Your task to perform on an android device: Show me popular videos on Youtube Image 0: 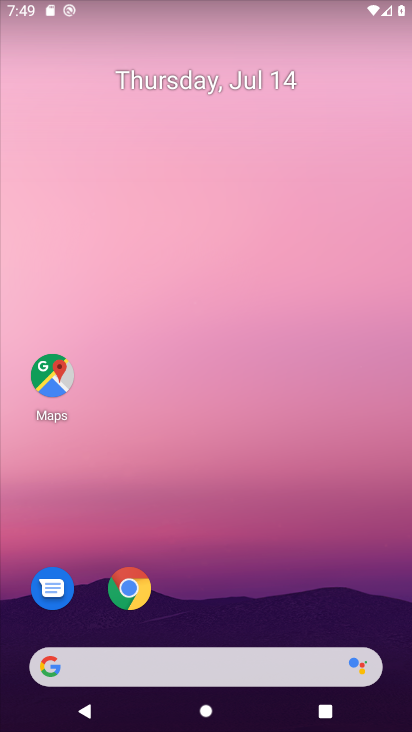
Step 0: drag from (209, 625) to (168, 140)
Your task to perform on an android device: Show me popular videos on Youtube Image 1: 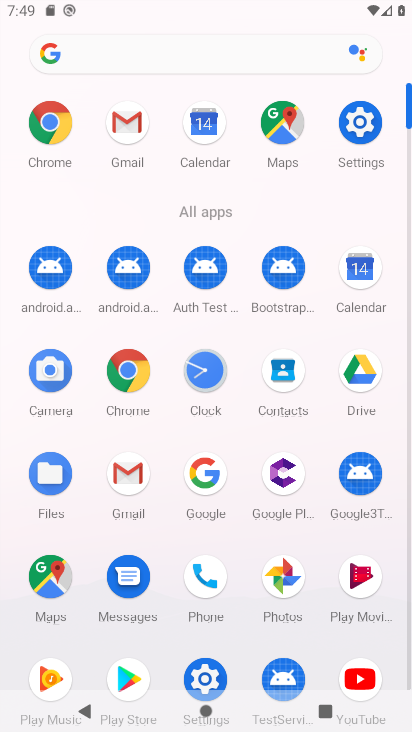
Step 1: click (353, 668)
Your task to perform on an android device: Show me popular videos on Youtube Image 2: 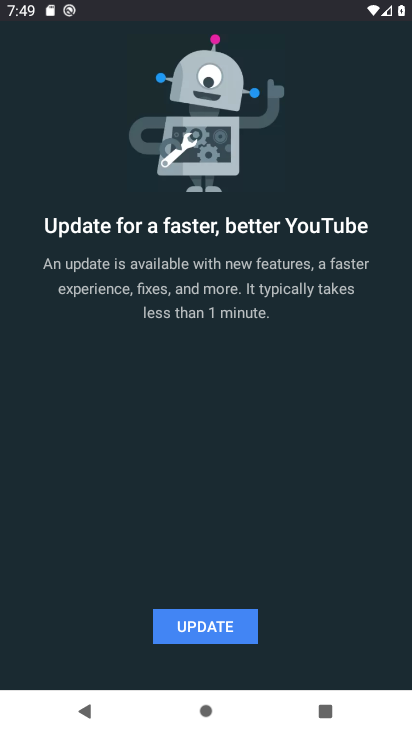
Step 2: click (186, 623)
Your task to perform on an android device: Show me popular videos on Youtube Image 3: 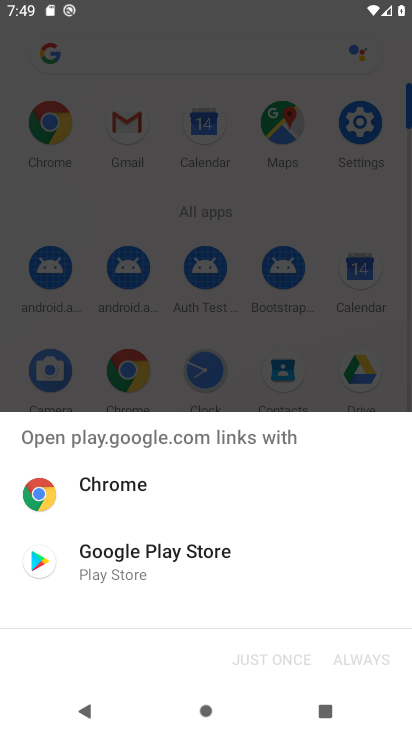
Step 3: click (162, 595)
Your task to perform on an android device: Show me popular videos on Youtube Image 4: 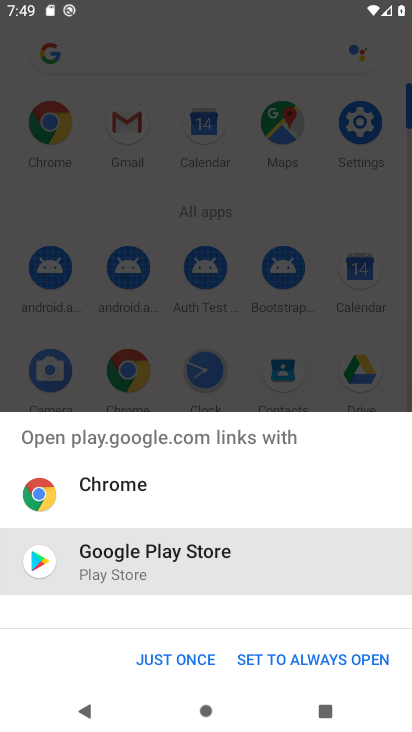
Step 4: click (207, 653)
Your task to perform on an android device: Show me popular videos on Youtube Image 5: 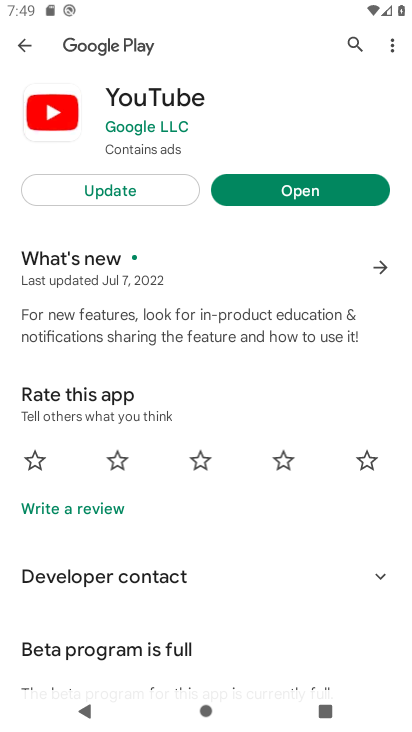
Step 5: click (149, 193)
Your task to perform on an android device: Show me popular videos on Youtube Image 6: 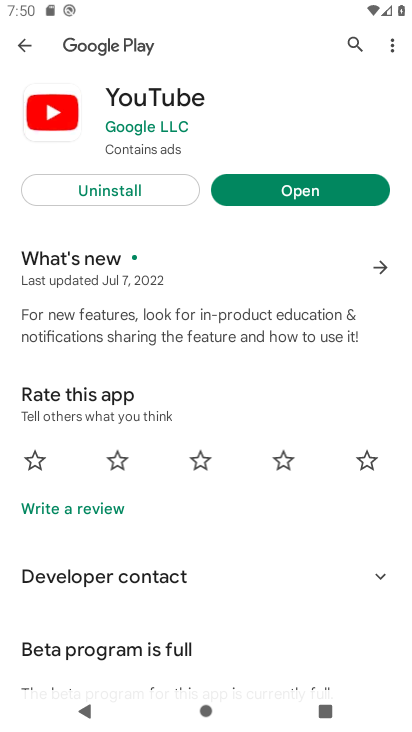
Step 6: click (270, 204)
Your task to perform on an android device: Show me popular videos on Youtube Image 7: 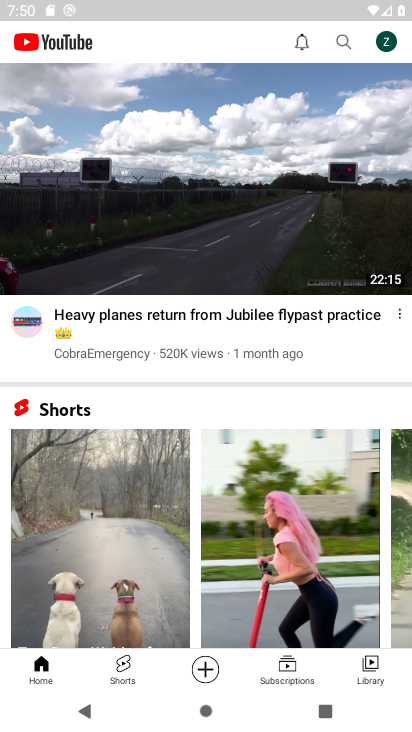
Step 7: click (293, 656)
Your task to perform on an android device: Show me popular videos on Youtube Image 8: 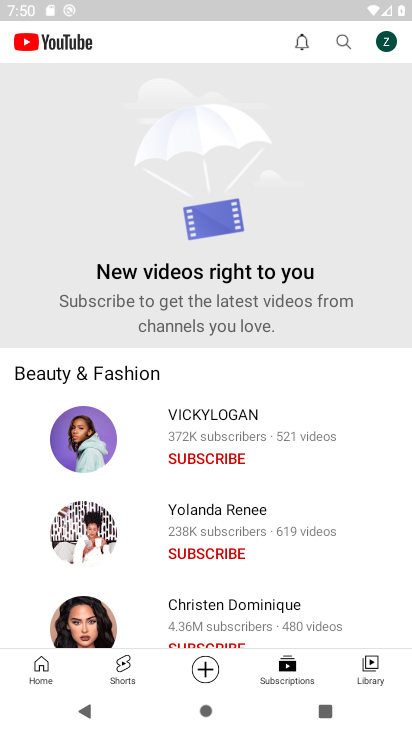
Step 8: task complete